Your task to perform on an android device: Open display settings Image 0: 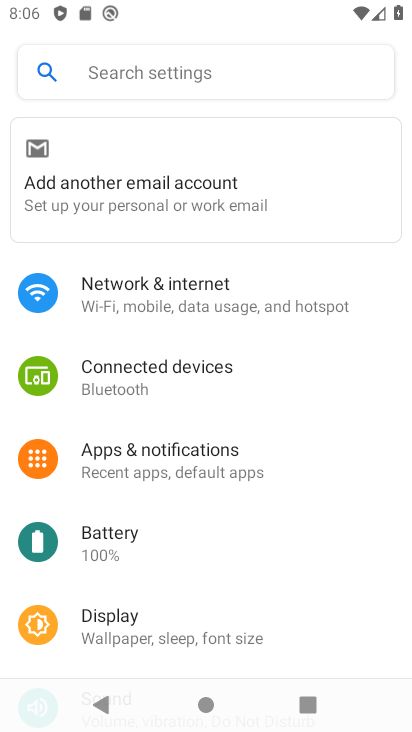
Step 0: press home button
Your task to perform on an android device: Open display settings Image 1: 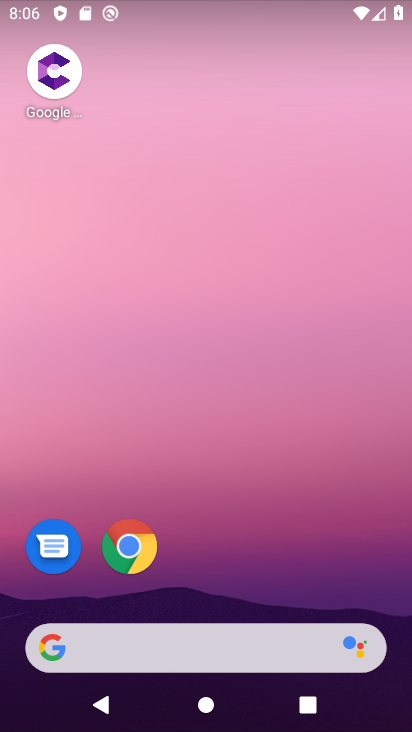
Step 1: drag from (246, 676) to (270, 204)
Your task to perform on an android device: Open display settings Image 2: 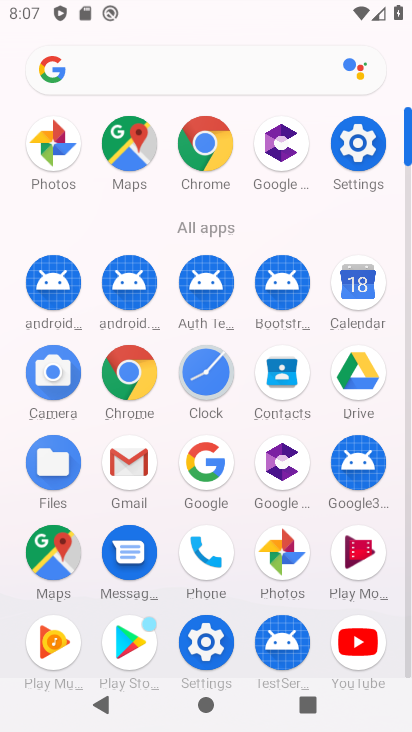
Step 2: click (353, 153)
Your task to perform on an android device: Open display settings Image 3: 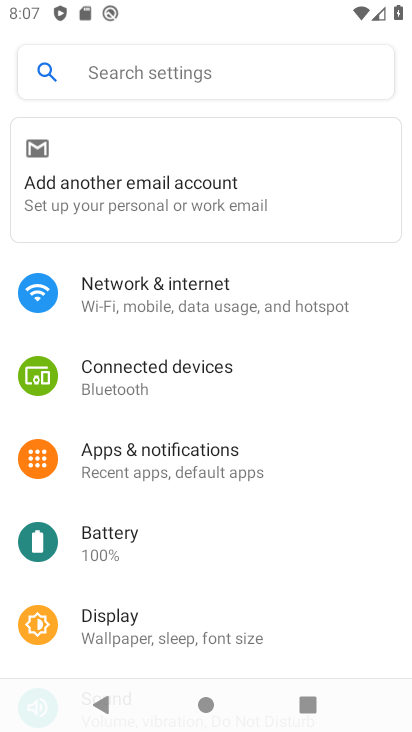
Step 3: click (160, 605)
Your task to perform on an android device: Open display settings Image 4: 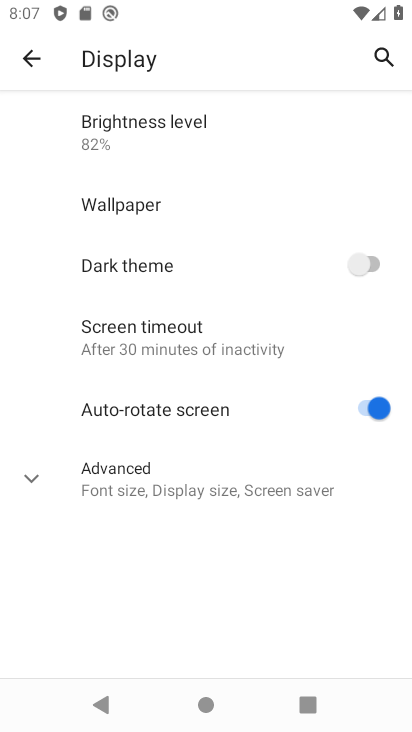
Step 4: task complete